Your task to perform on an android device: Go to location settings Image 0: 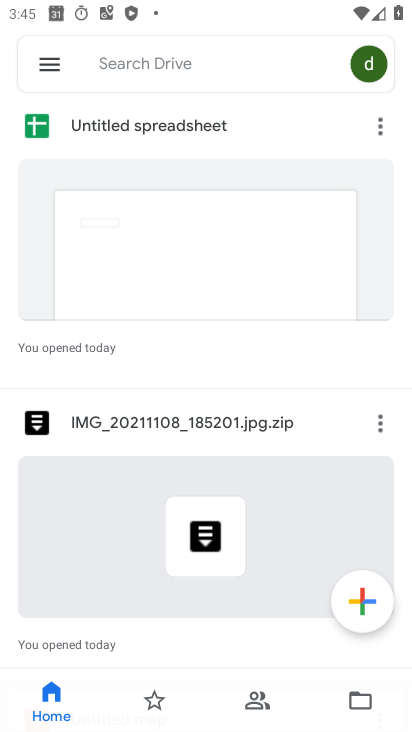
Step 0: press home button
Your task to perform on an android device: Go to location settings Image 1: 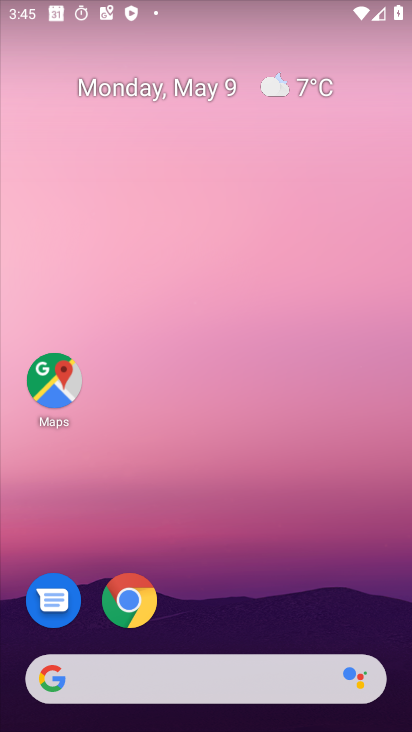
Step 1: drag from (236, 566) to (282, 141)
Your task to perform on an android device: Go to location settings Image 2: 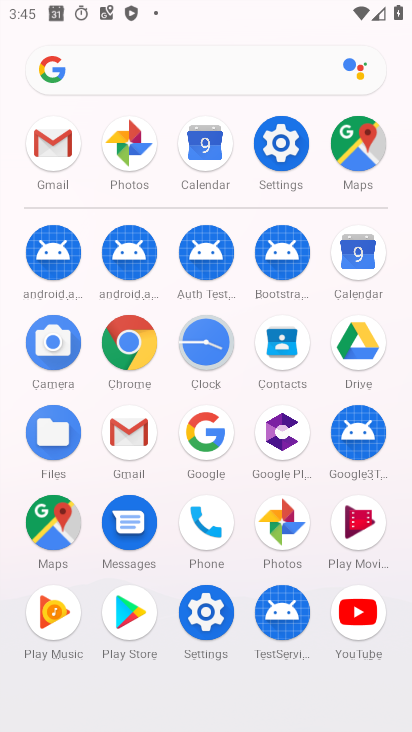
Step 2: click (280, 133)
Your task to perform on an android device: Go to location settings Image 3: 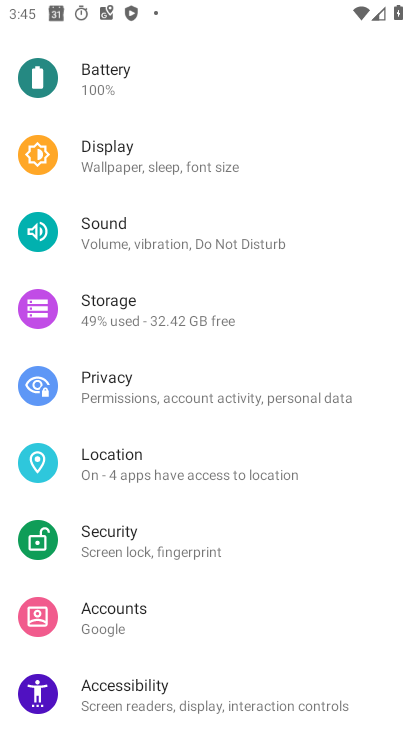
Step 3: click (202, 467)
Your task to perform on an android device: Go to location settings Image 4: 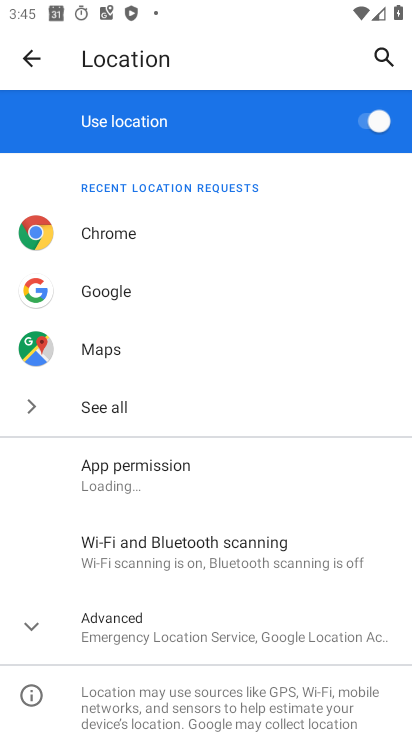
Step 4: task complete